Your task to perform on an android device: Go to Google maps Image 0: 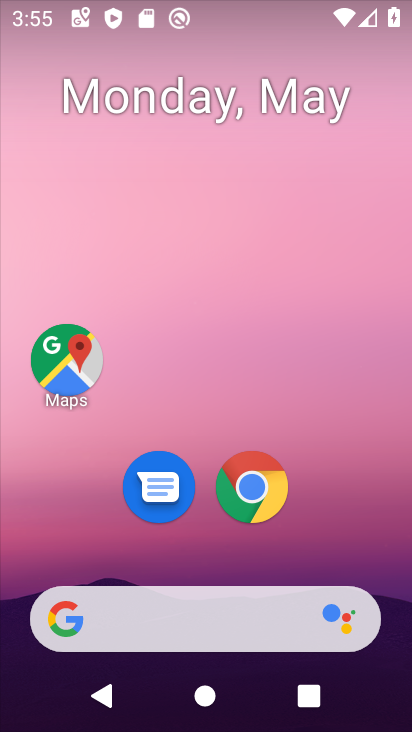
Step 0: drag from (176, 521) to (183, 298)
Your task to perform on an android device: Go to Google maps Image 1: 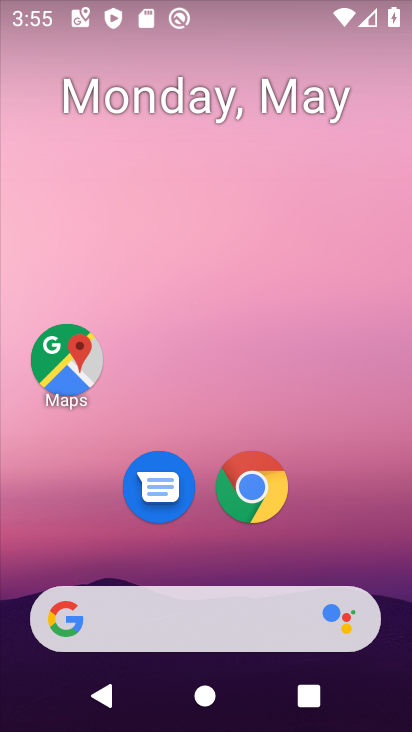
Step 1: drag from (197, 526) to (209, 270)
Your task to perform on an android device: Go to Google maps Image 2: 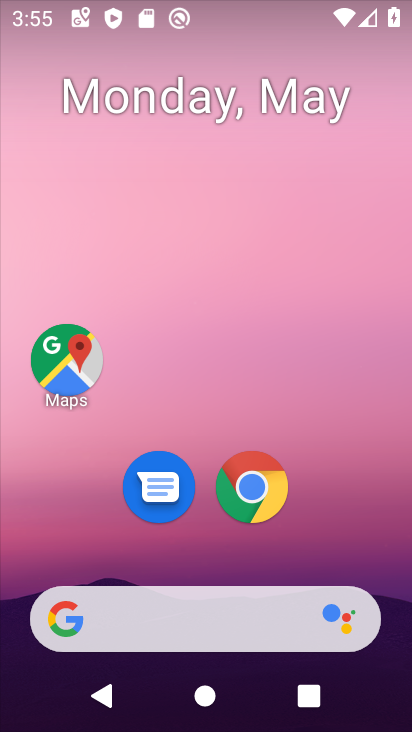
Step 2: click (60, 369)
Your task to perform on an android device: Go to Google maps Image 3: 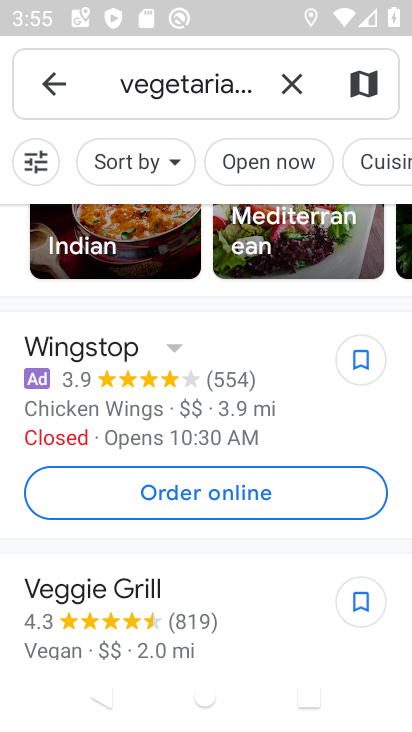
Step 3: click (298, 83)
Your task to perform on an android device: Go to Google maps Image 4: 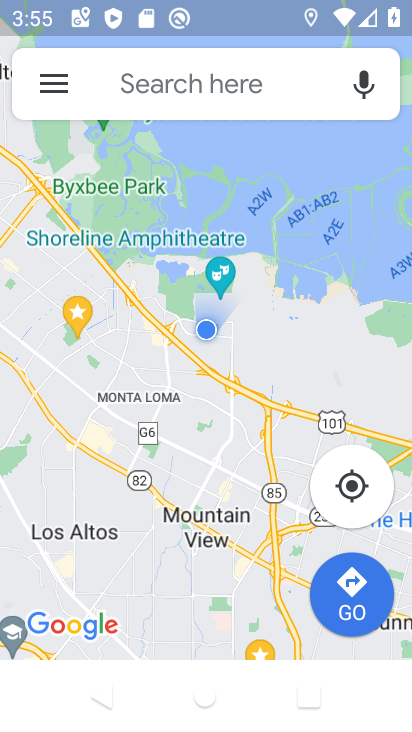
Step 4: task complete